Your task to perform on an android device: toggle javascript in the chrome app Image 0: 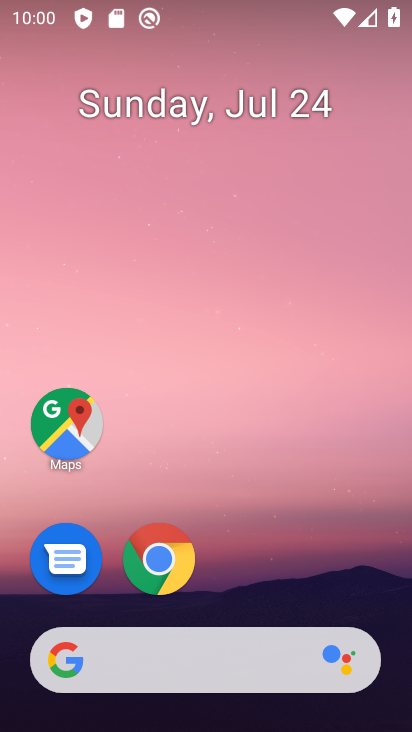
Step 0: click (165, 564)
Your task to perform on an android device: toggle javascript in the chrome app Image 1: 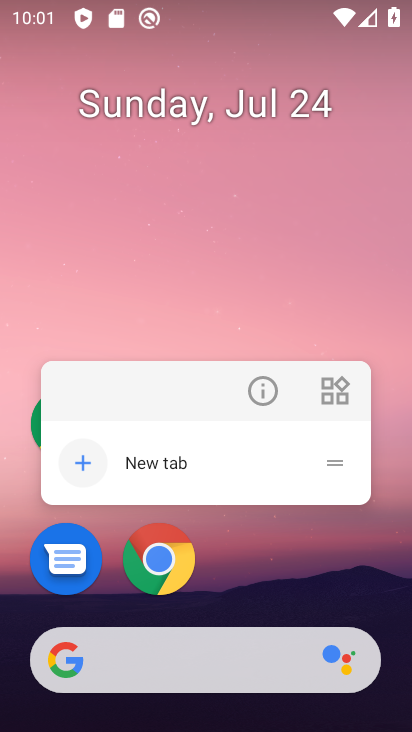
Step 1: click (165, 556)
Your task to perform on an android device: toggle javascript in the chrome app Image 2: 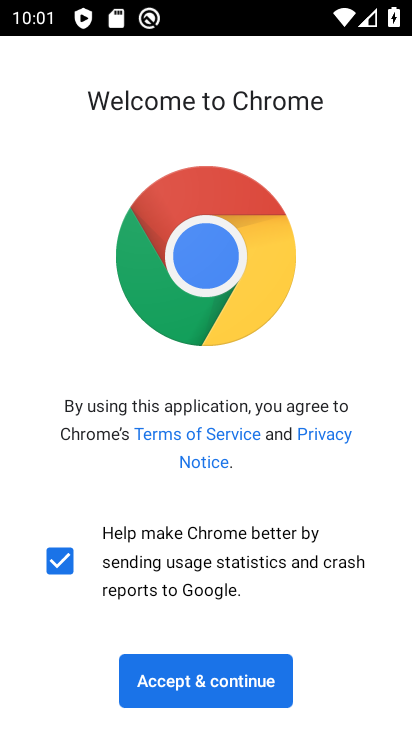
Step 2: click (184, 677)
Your task to perform on an android device: toggle javascript in the chrome app Image 3: 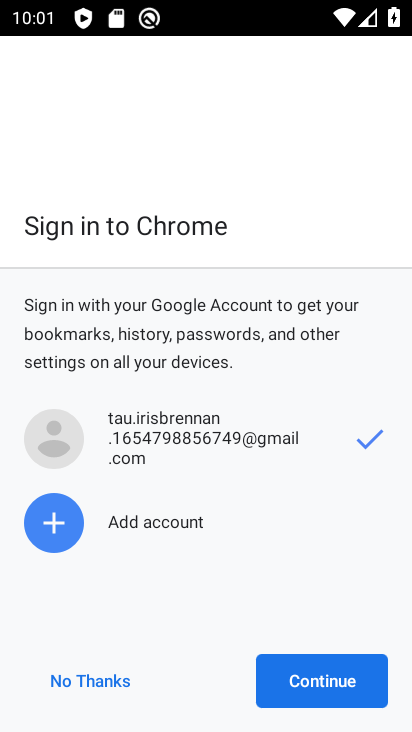
Step 3: click (310, 665)
Your task to perform on an android device: toggle javascript in the chrome app Image 4: 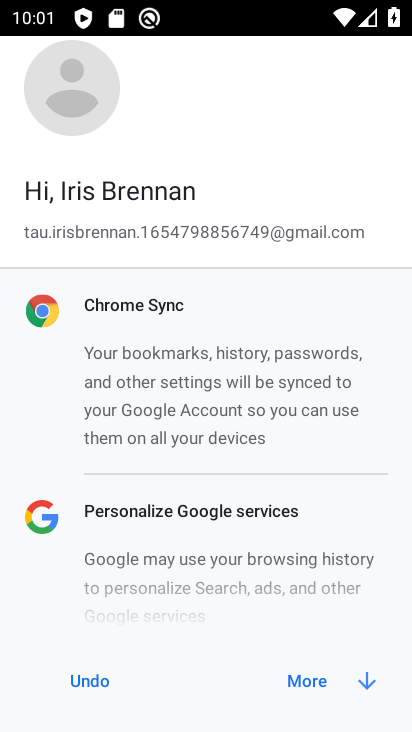
Step 4: click (308, 674)
Your task to perform on an android device: toggle javascript in the chrome app Image 5: 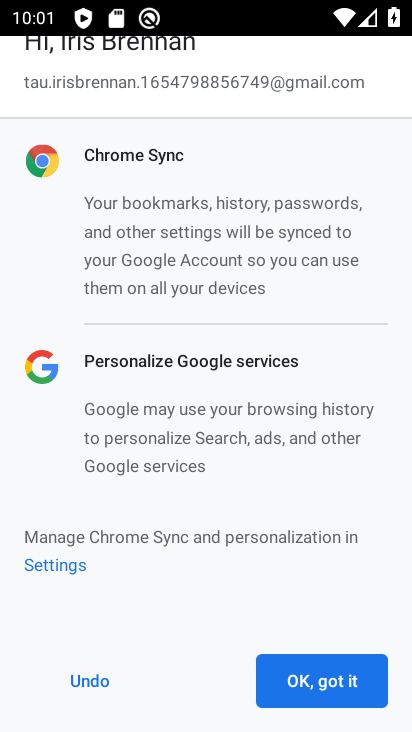
Step 5: click (309, 676)
Your task to perform on an android device: toggle javascript in the chrome app Image 6: 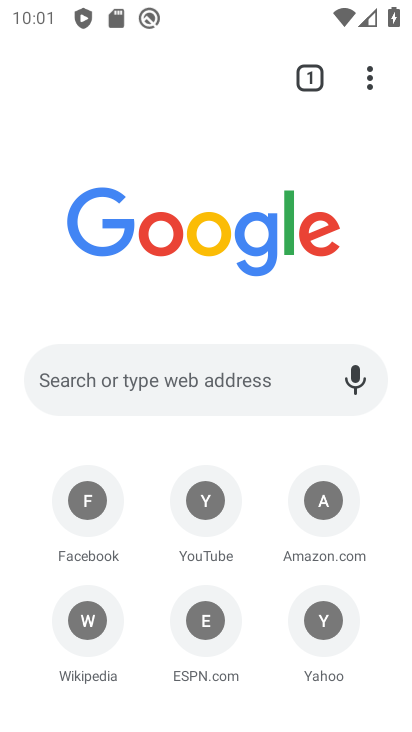
Step 6: drag from (371, 71) to (110, 644)
Your task to perform on an android device: toggle javascript in the chrome app Image 7: 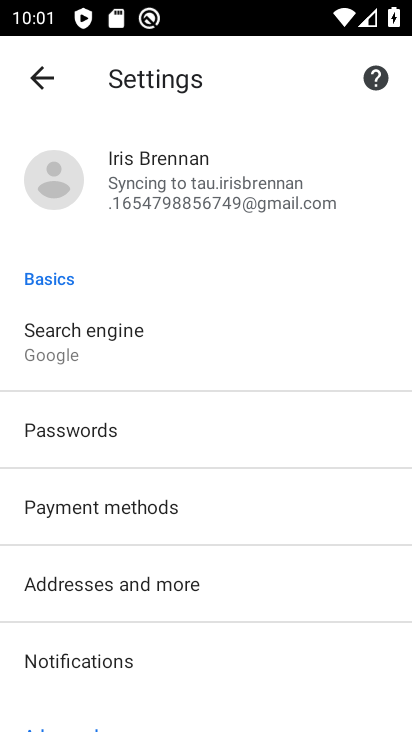
Step 7: drag from (119, 653) to (216, 100)
Your task to perform on an android device: toggle javascript in the chrome app Image 8: 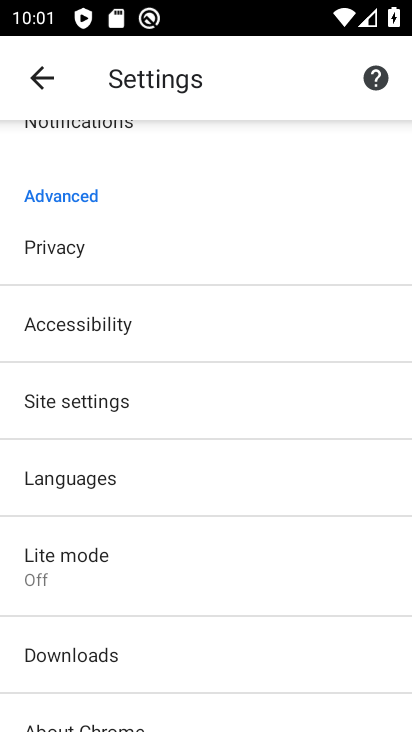
Step 8: click (105, 403)
Your task to perform on an android device: toggle javascript in the chrome app Image 9: 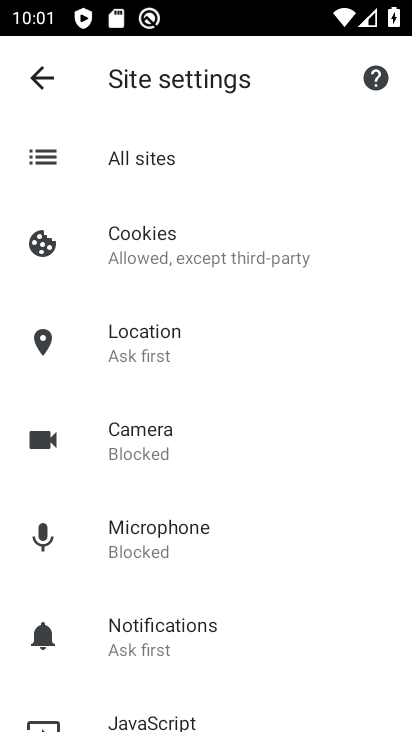
Step 9: click (149, 723)
Your task to perform on an android device: toggle javascript in the chrome app Image 10: 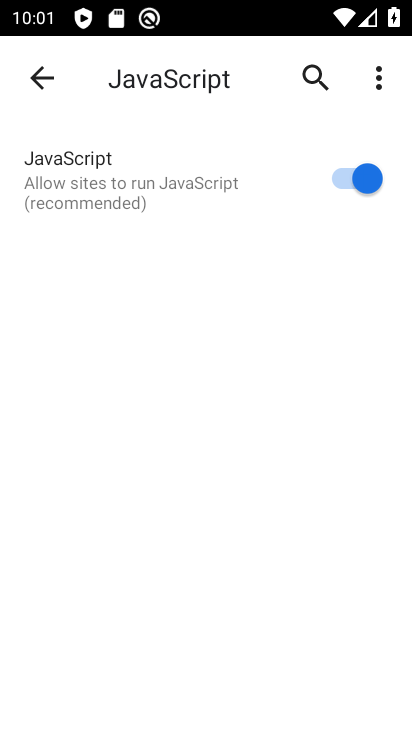
Step 10: click (358, 165)
Your task to perform on an android device: toggle javascript in the chrome app Image 11: 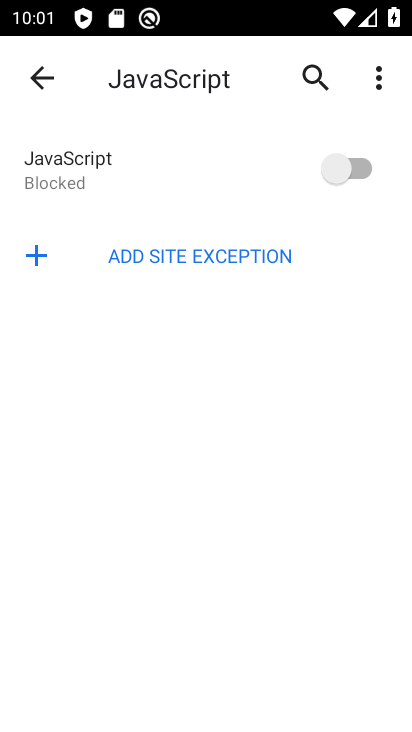
Step 11: task complete